Your task to perform on an android device: Show me recent news Image 0: 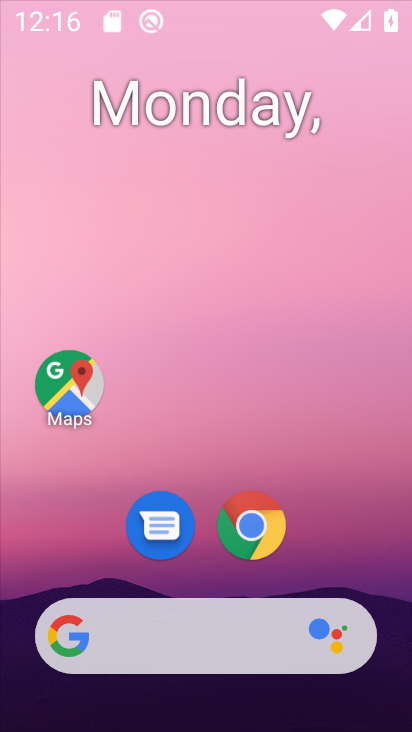
Step 0: click (397, 212)
Your task to perform on an android device: Show me recent news Image 1: 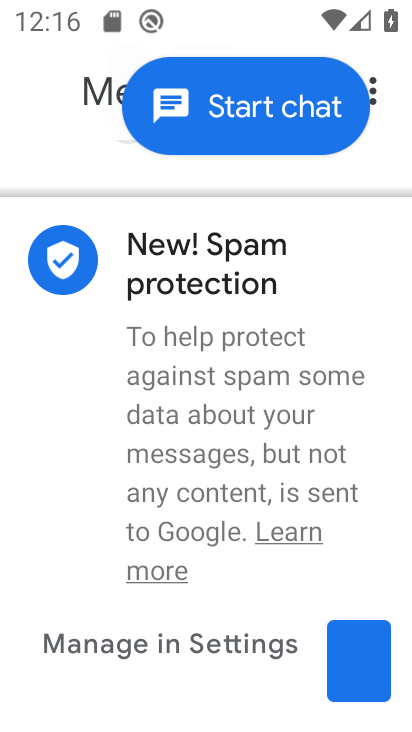
Step 1: press home button
Your task to perform on an android device: Show me recent news Image 2: 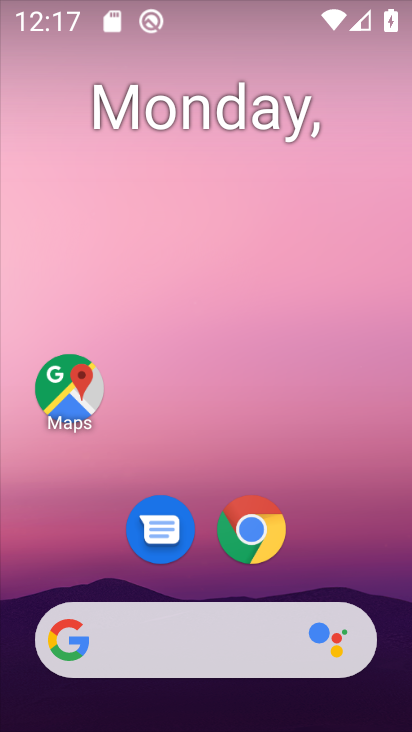
Step 2: drag from (387, 602) to (409, 158)
Your task to perform on an android device: Show me recent news Image 3: 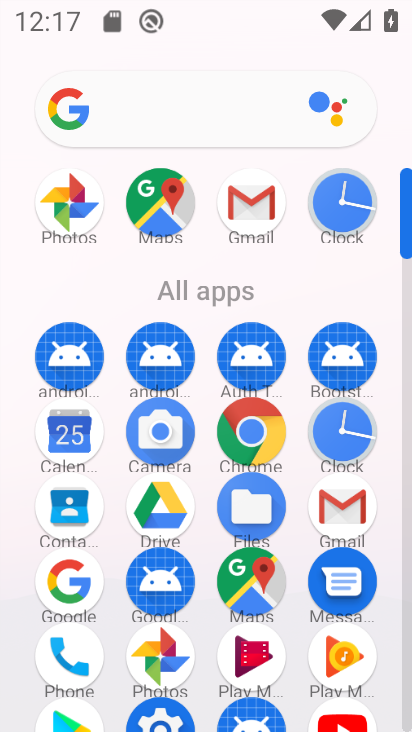
Step 3: click (65, 568)
Your task to perform on an android device: Show me recent news Image 4: 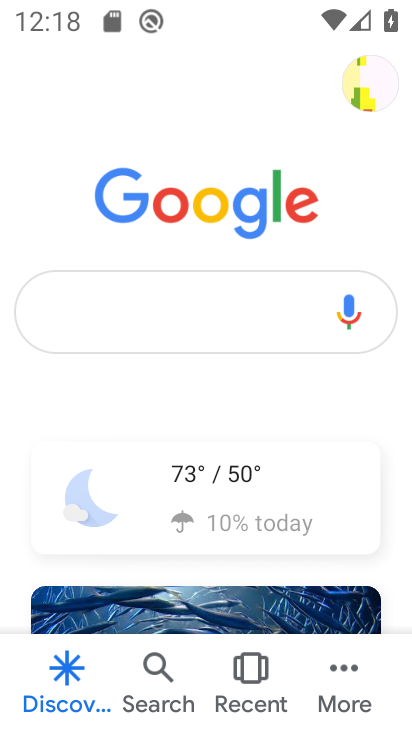
Step 4: task complete